Your task to perform on an android device: Open maps Image 0: 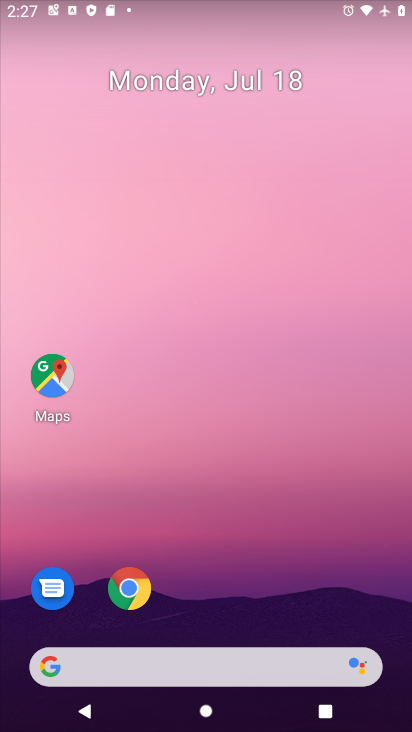
Step 0: drag from (242, 629) to (302, 148)
Your task to perform on an android device: Open maps Image 1: 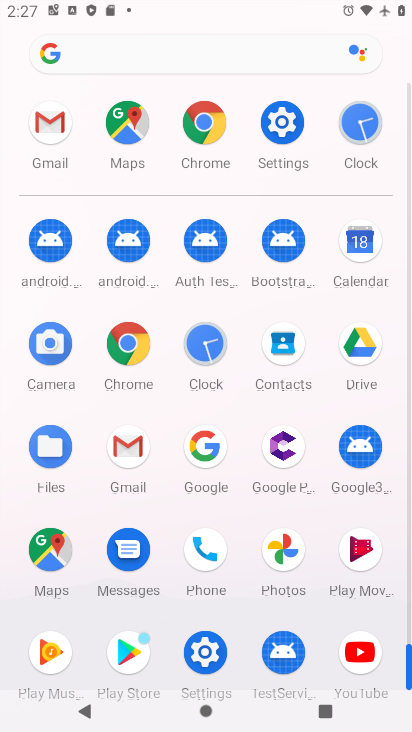
Step 1: click (50, 563)
Your task to perform on an android device: Open maps Image 2: 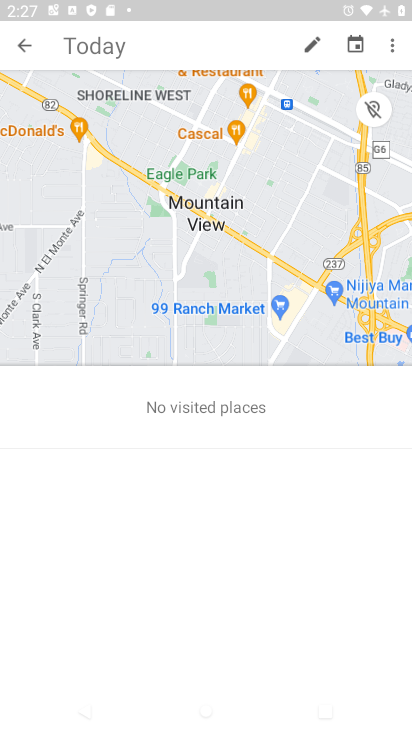
Step 2: task complete